Your task to perform on an android device: turn on the 12-hour format for clock Image 0: 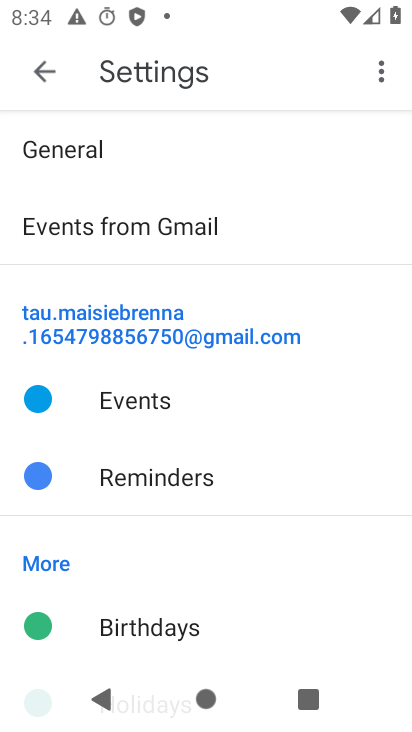
Step 0: press home button
Your task to perform on an android device: turn on the 12-hour format for clock Image 1: 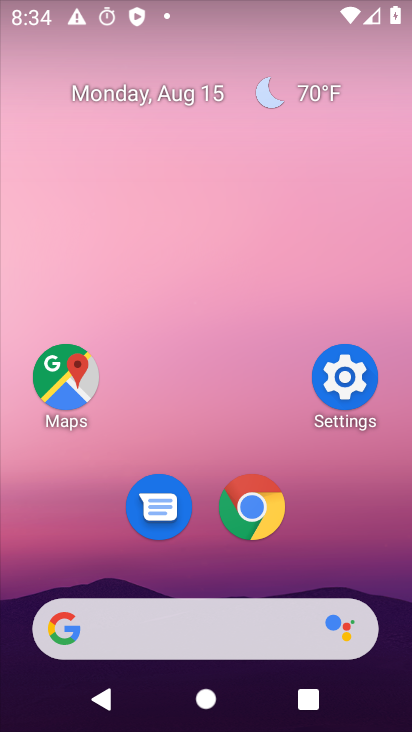
Step 1: drag from (231, 633) to (315, 18)
Your task to perform on an android device: turn on the 12-hour format for clock Image 2: 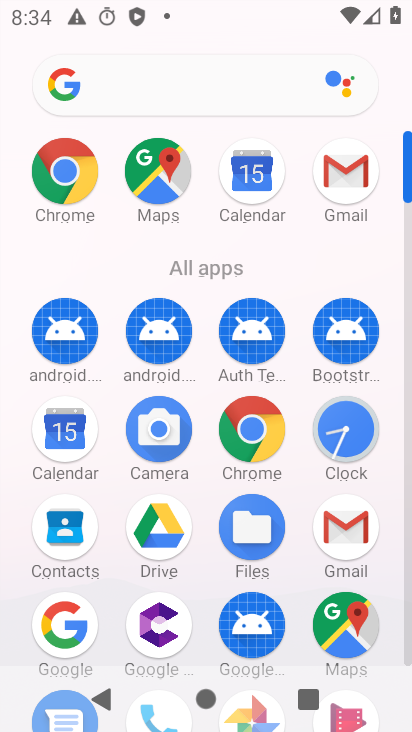
Step 2: click (356, 431)
Your task to perform on an android device: turn on the 12-hour format for clock Image 3: 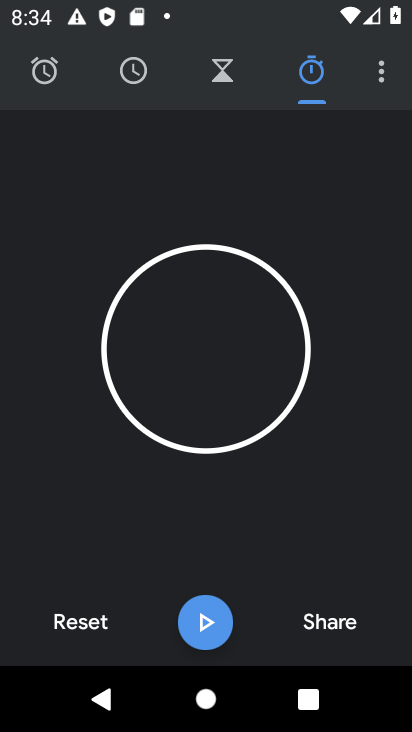
Step 3: click (385, 64)
Your task to perform on an android device: turn on the 12-hour format for clock Image 4: 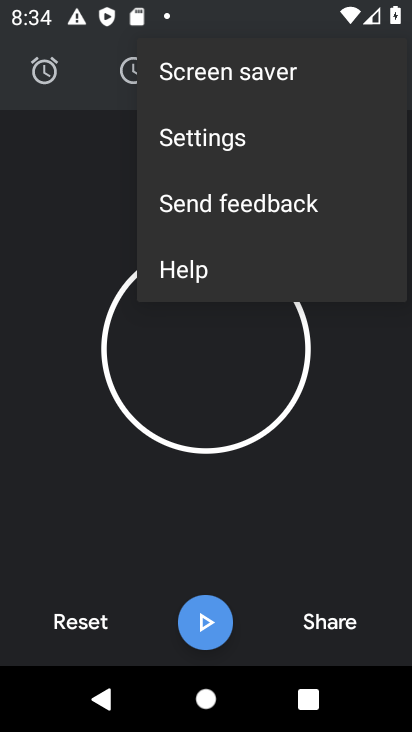
Step 4: click (243, 137)
Your task to perform on an android device: turn on the 12-hour format for clock Image 5: 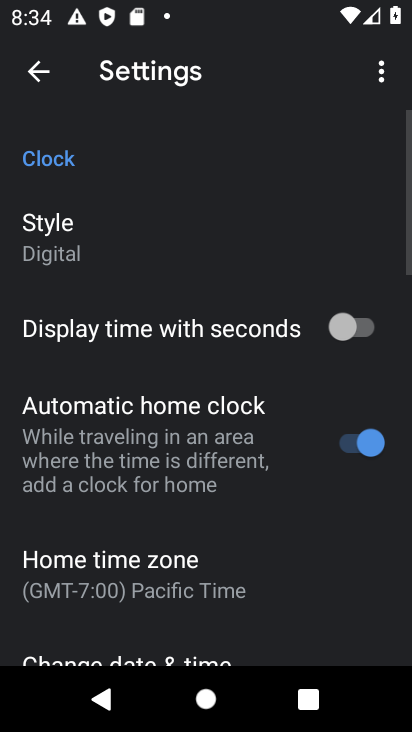
Step 5: drag from (256, 542) to (279, 114)
Your task to perform on an android device: turn on the 12-hour format for clock Image 6: 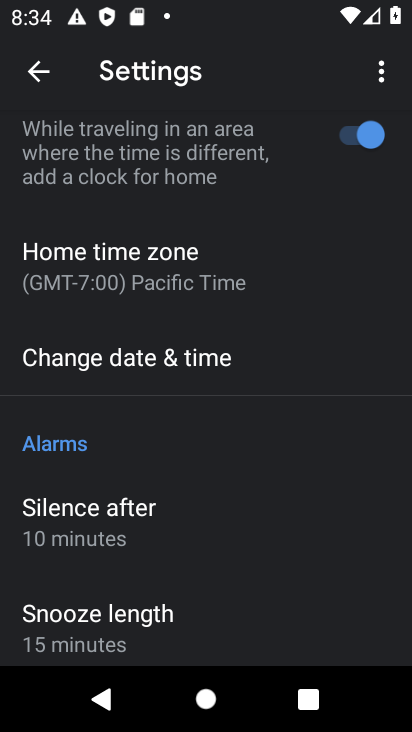
Step 6: click (161, 360)
Your task to perform on an android device: turn on the 12-hour format for clock Image 7: 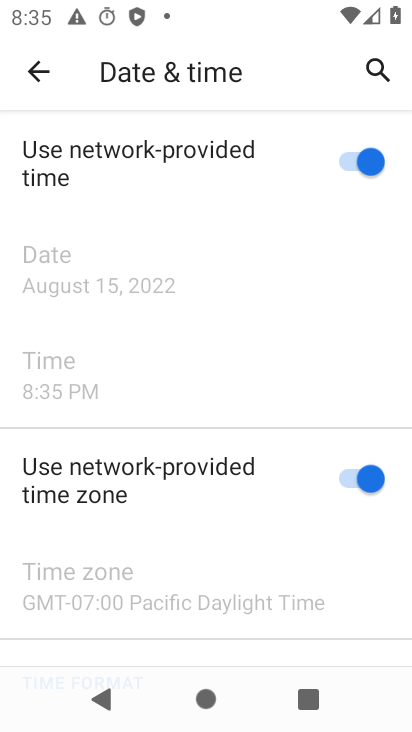
Step 7: task complete